Your task to perform on an android device: Open Reddit.com Image 0: 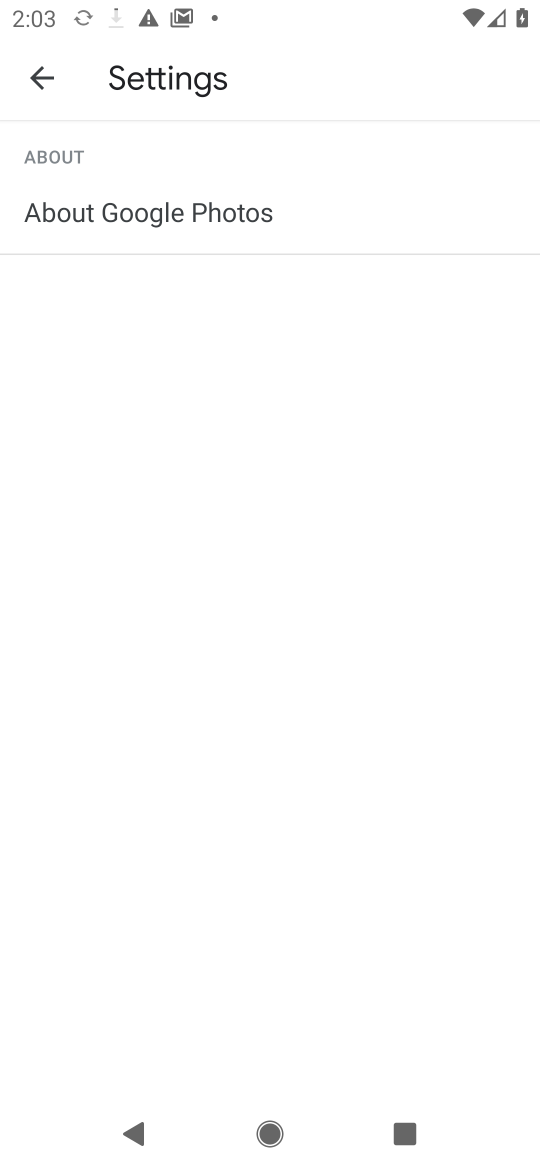
Step 0: press home button
Your task to perform on an android device: Open Reddit.com Image 1: 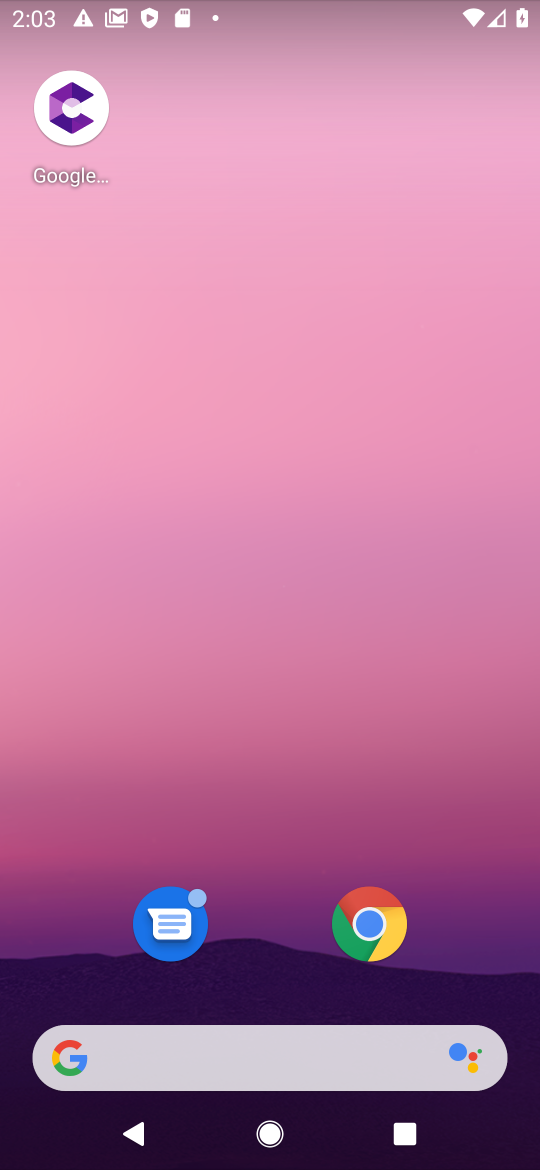
Step 1: click (367, 927)
Your task to perform on an android device: Open Reddit.com Image 2: 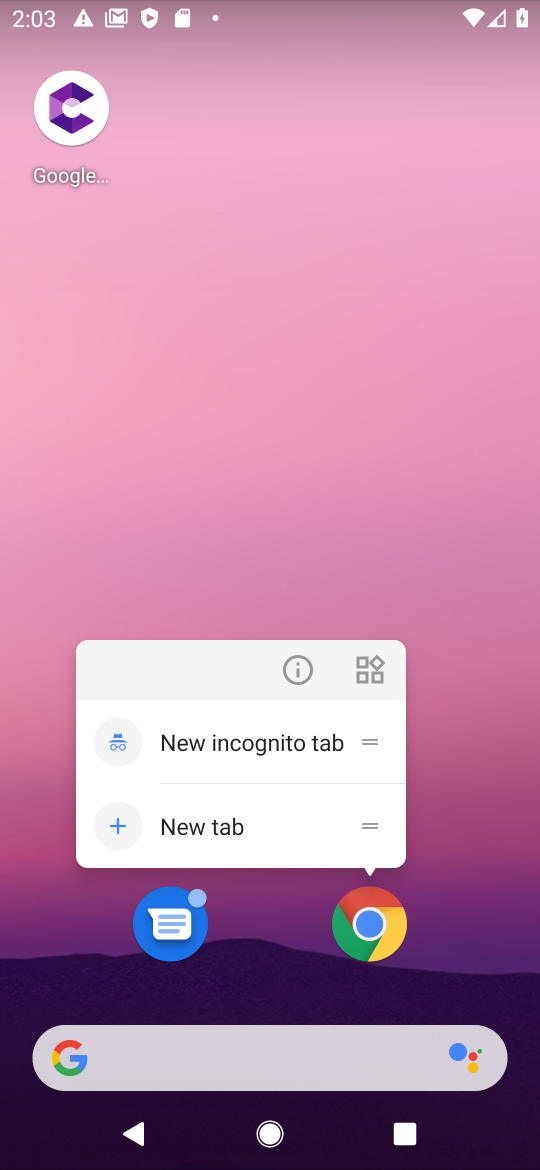
Step 2: click (372, 939)
Your task to perform on an android device: Open Reddit.com Image 3: 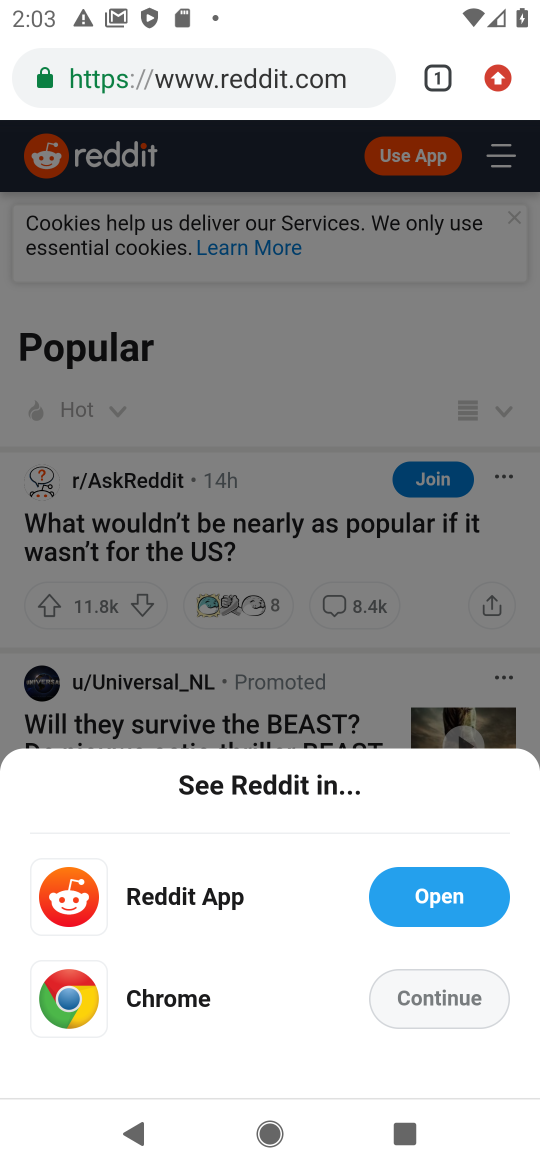
Step 3: task complete